Your task to perform on an android device: Search for razer blade on newegg, select the first entry, and add it to the cart. Image 0: 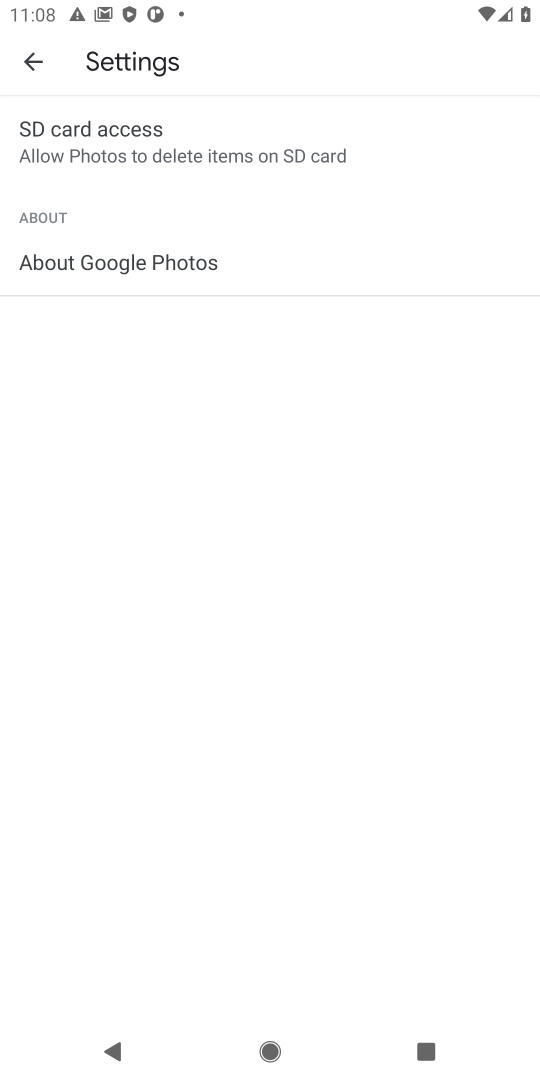
Step 0: press home button
Your task to perform on an android device: Search for razer blade on newegg, select the first entry, and add it to the cart. Image 1: 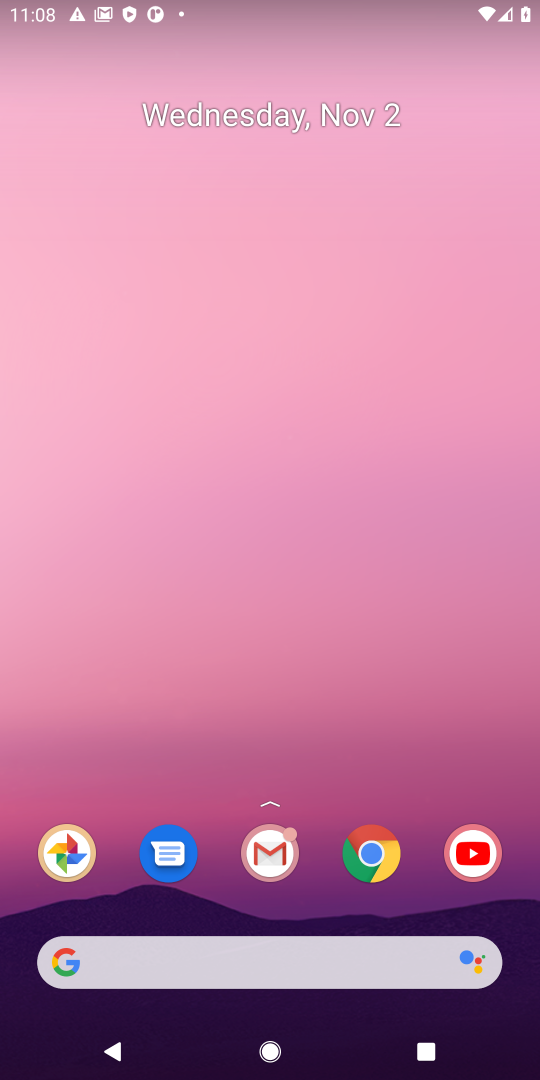
Step 1: click (371, 860)
Your task to perform on an android device: Search for razer blade on newegg, select the first entry, and add it to the cart. Image 2: 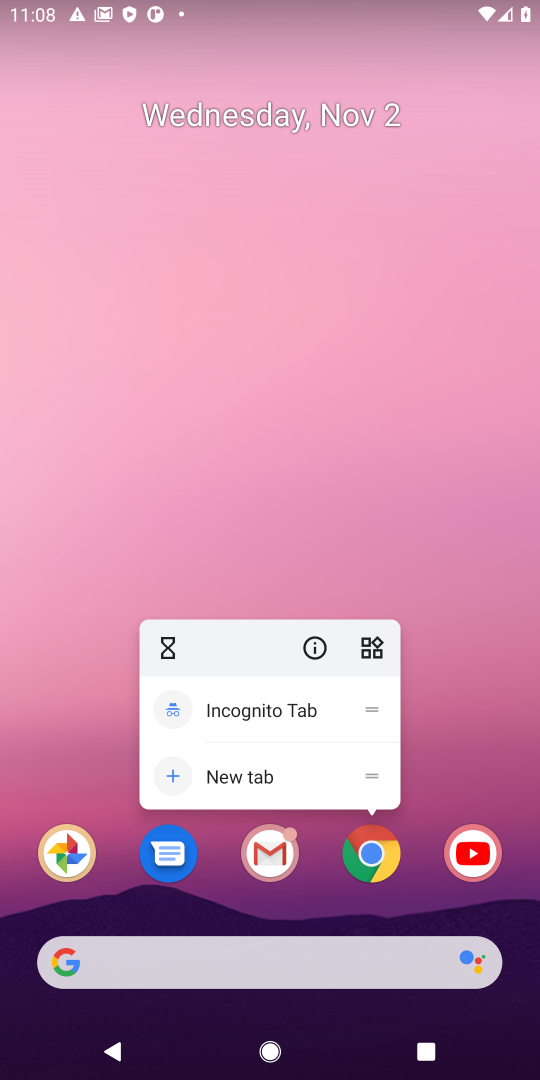
Step 2: click (382, 851)
Your task to perform on an android device: Search for razer blade on newegg, select the first entry, and add it to the cart. Image 3: 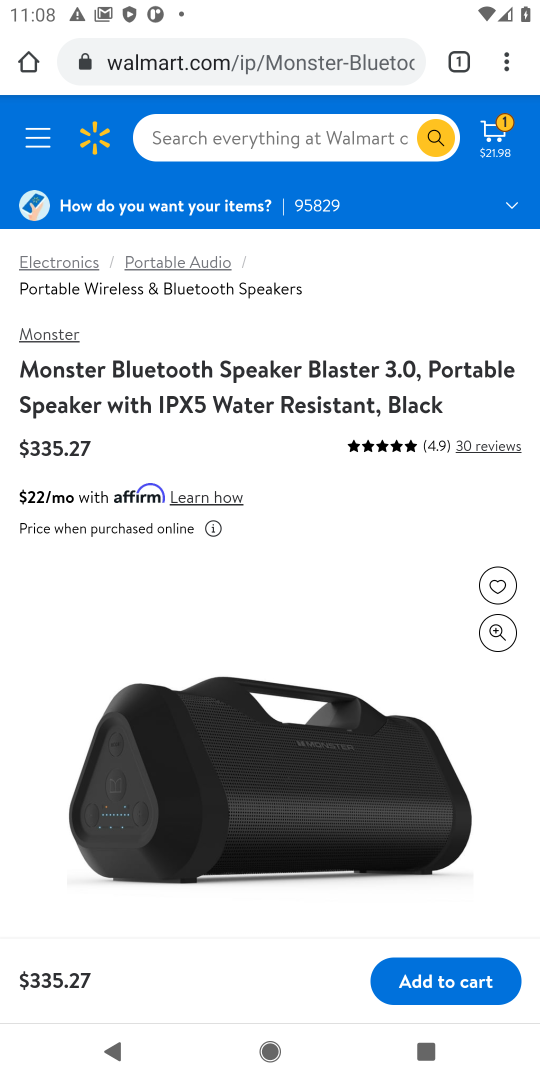
Step 3: click (256, 53)
Your task to perform on an android device: Search for razer blade on newegg, select the first entry, and add it to the cart. Image 4: 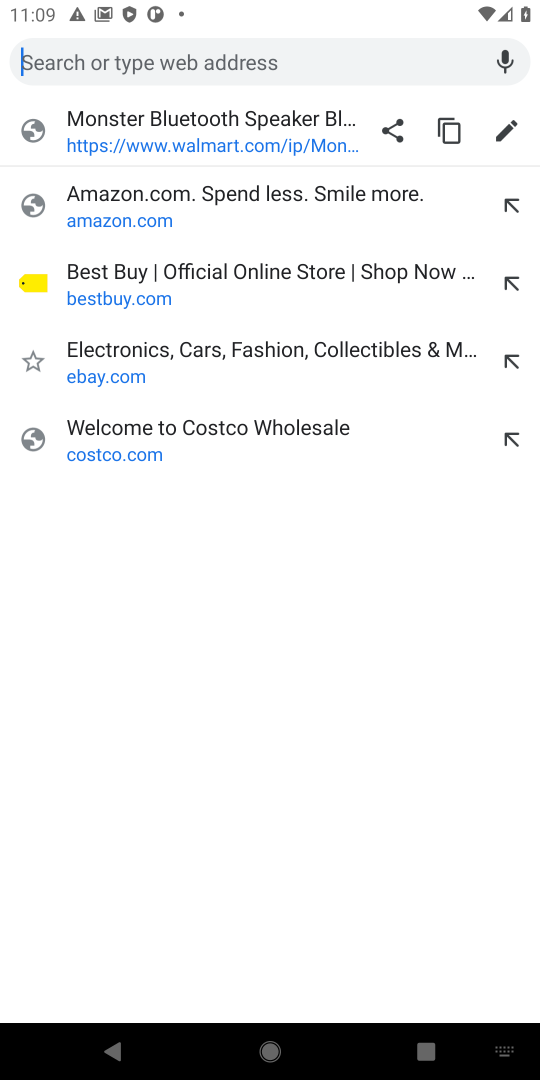
Step 4: type "newegg"
Your task to perform on an android device: Search for razer blade on newegg, select the first entry, and add it to the cart. Image 5: 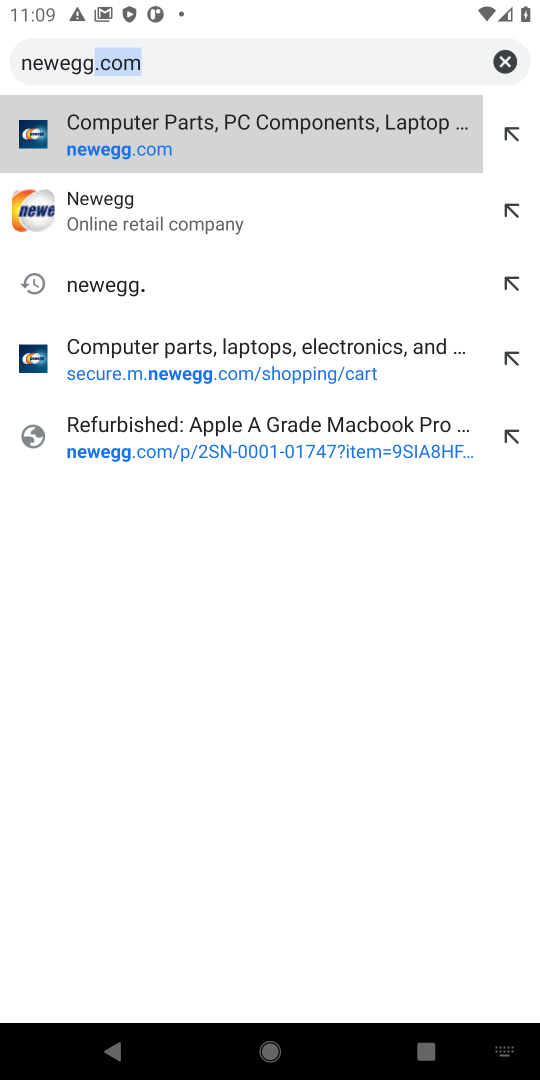
Step 5: press enter
Your task to perform on an android device: Search for razer blade on newegg, select the first entry, and add it to the cart. Image 6: 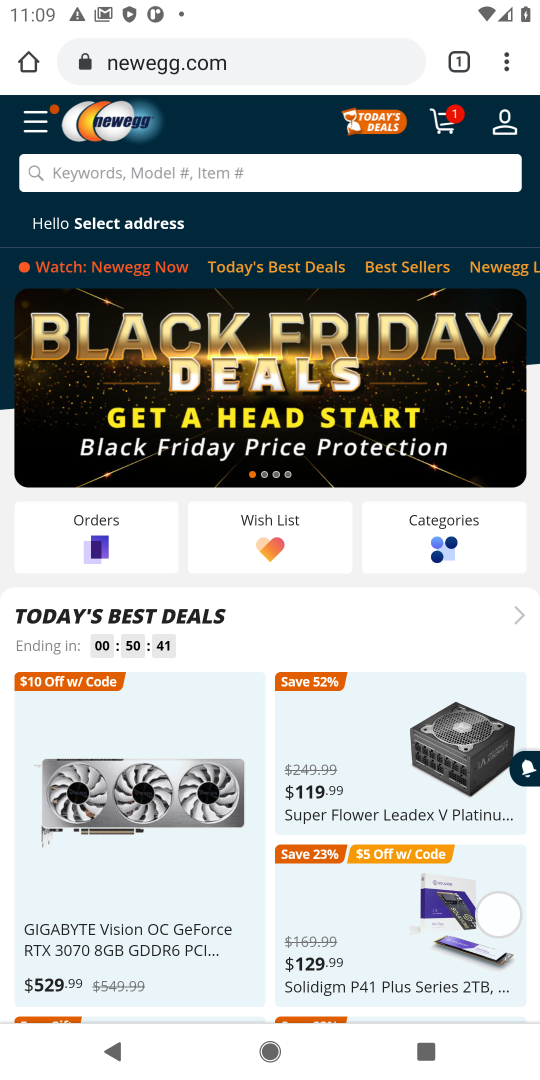
Step 6: click (361, 179)
Your task to perform on an android device: Search for razer blade on newegg, select the first entry, and add it to the cart. Image 7: 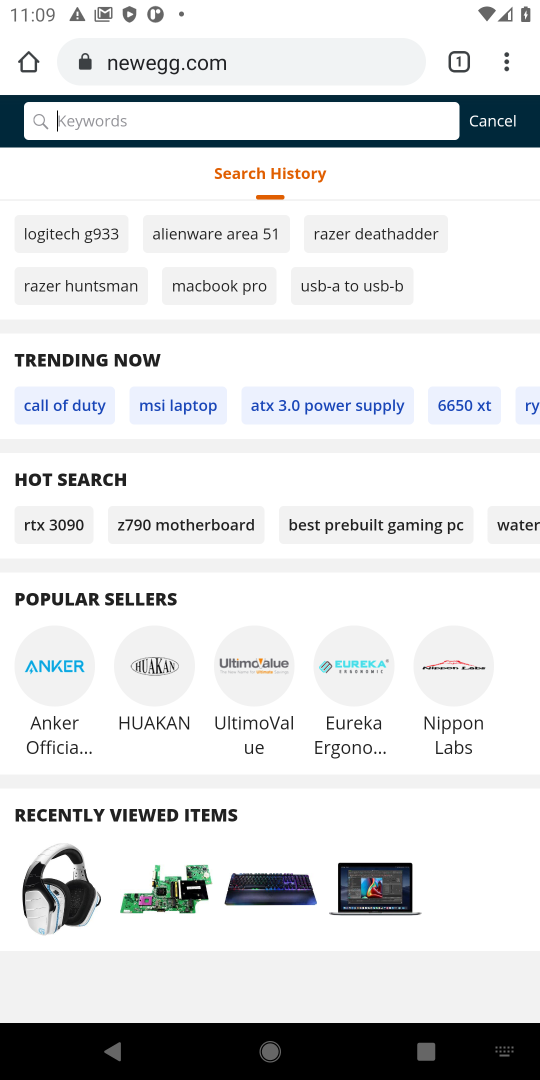
Step 7: type "razer blade "
Your task to perform on an android device: Search for razer blade on newegg, select the first entry, and add it to the cart. Image 8: 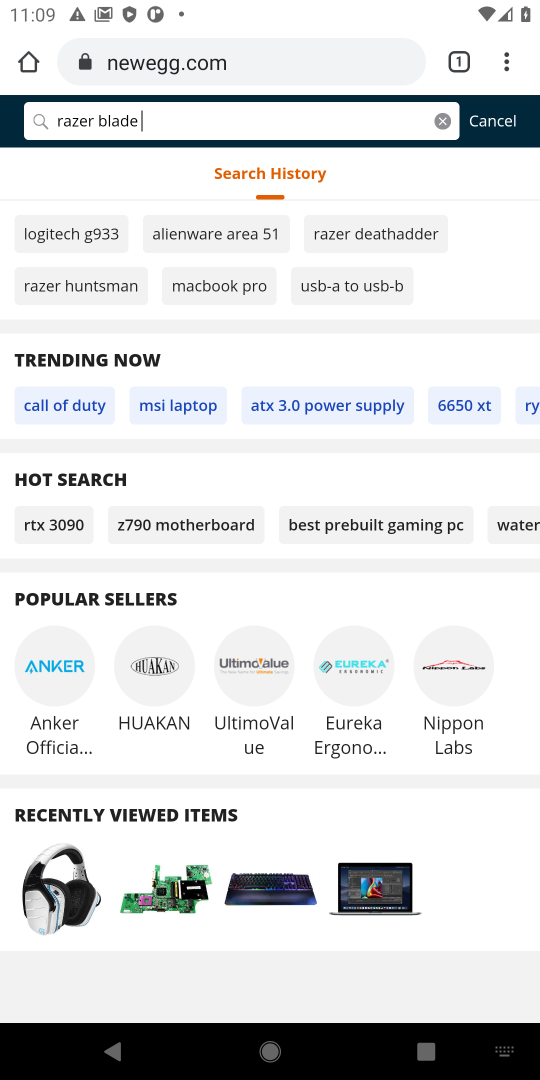
Step 8: press enter
Your task to perform on an android device: Search for razer blade on newegg, select the first entry, and add it to the cart. Image 9: 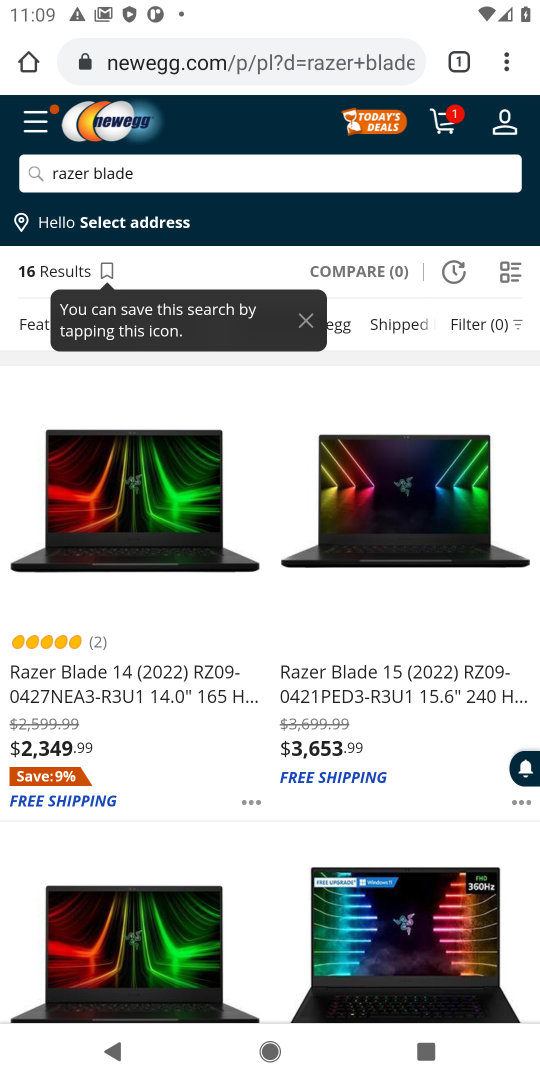
Step 9: click (58, 685)
Your task to perform on an android device: Search for razer blade on newegg, select the first entry, and add it to the cart. Image 10: 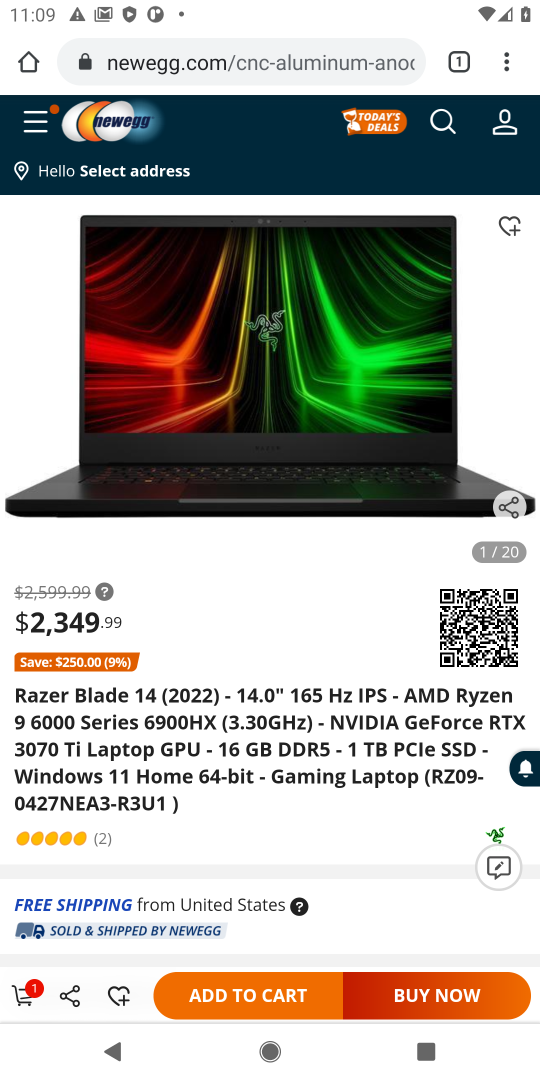
Step 10: click (257, 984)
Your task to perform on an android device: Search for razer blade on newegg, select the first entry, and add it to the cart. Image 11: 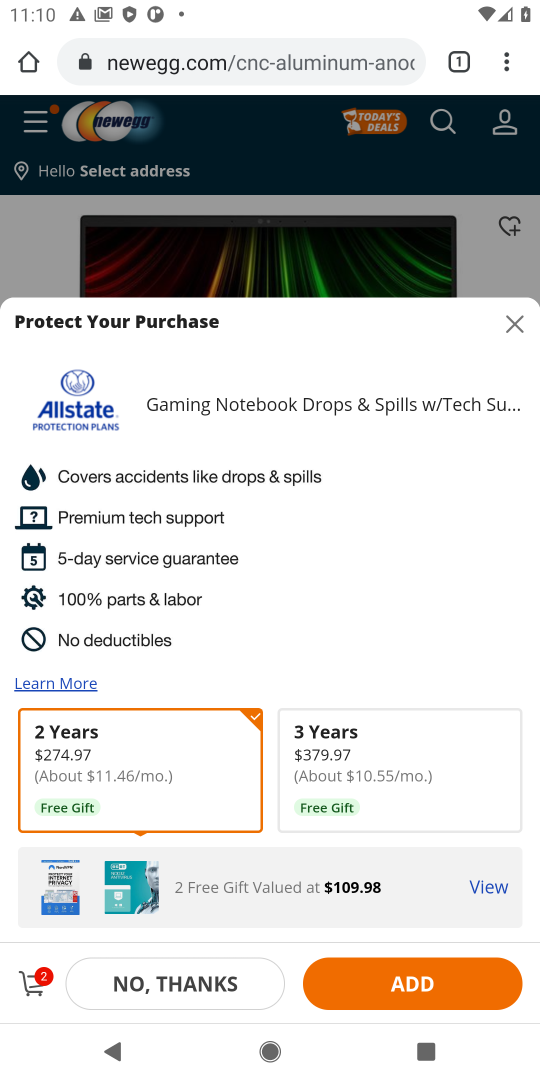
Step 11: click (179, 980)
Your task to perform on an android device: Search for razer blade on newegg, select the first entry, and add it to the cart. Image 12: 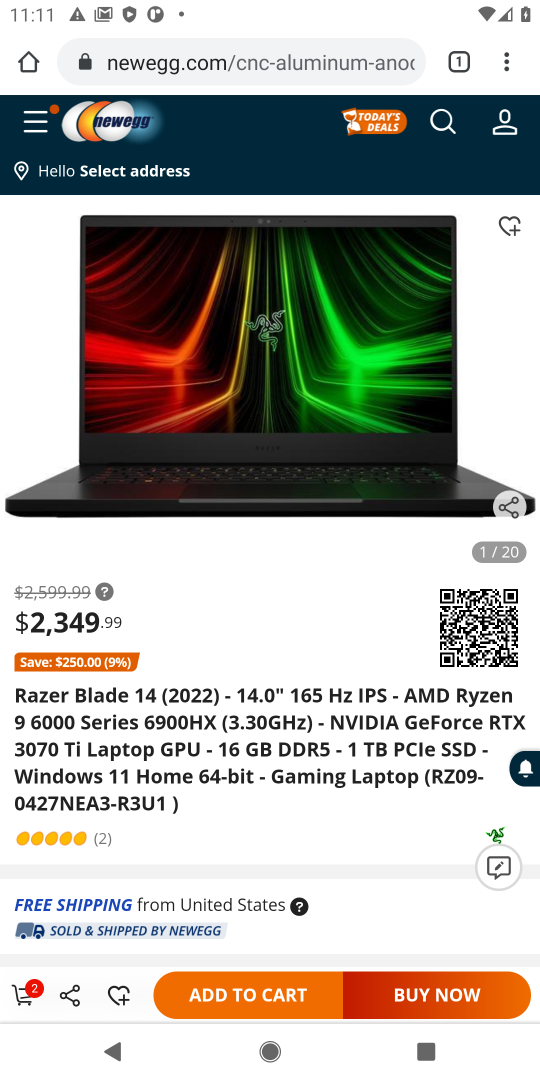
Step 12: click (280, 995)
Your task to perform on an android device: Search for razer blade on newegg, select the first entry, and add it to the cart. Image 13: 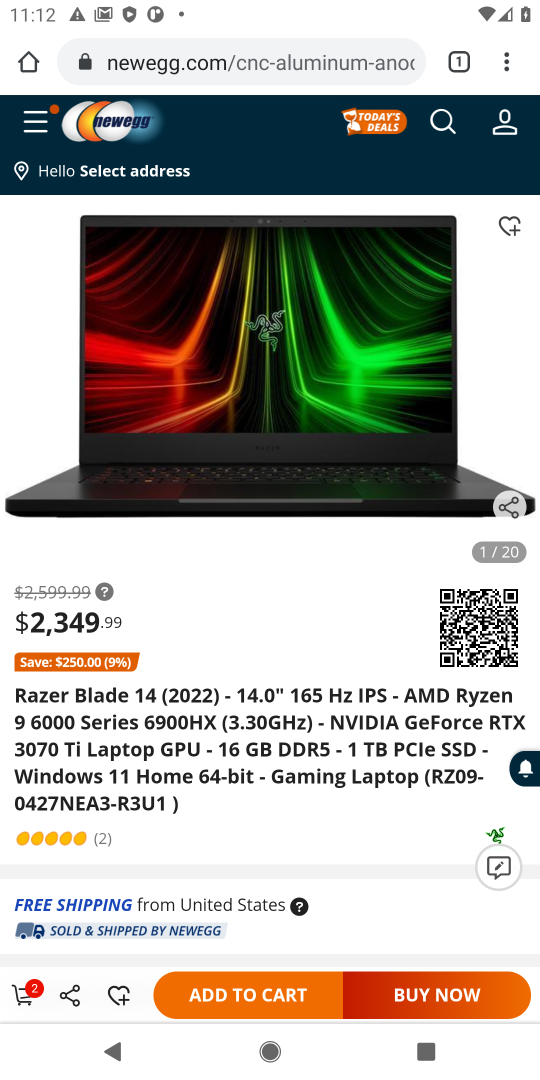
Step 13: click (17, 987)
Your task to perform on an android device: Search for razer blade on newegg, select the first entry, and add it to the cart. Image 14: 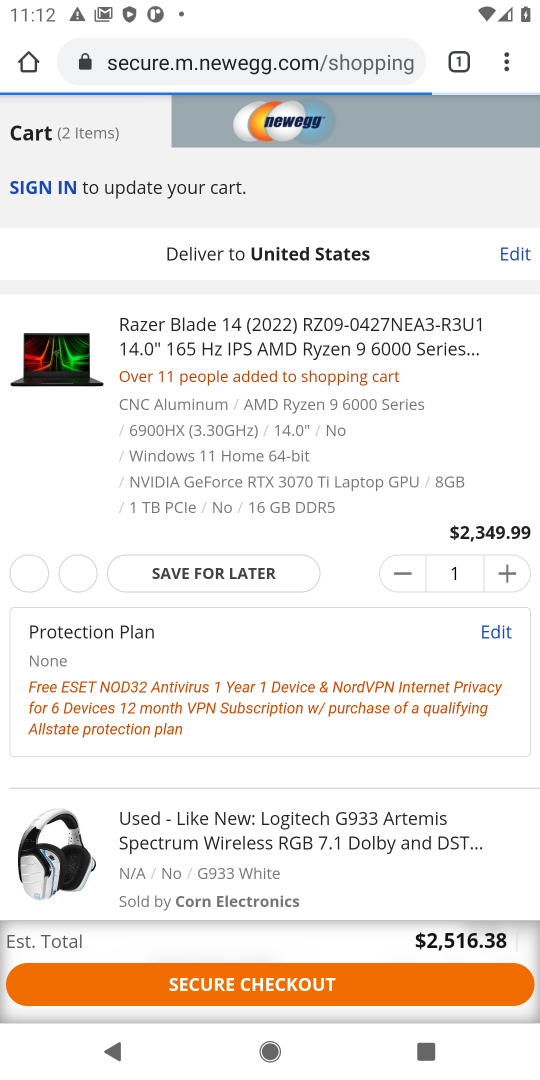
Step 14: task complete